Your task to perform on an android device: Open Google Maps and go to "Timeline" Image 0: 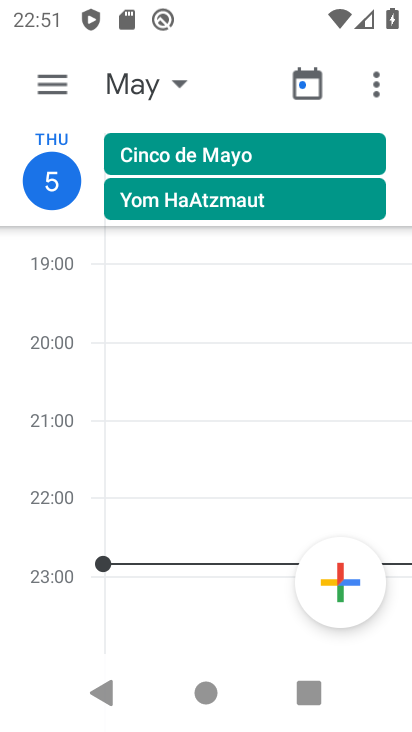
Step 0: press home button
Your task to perform on an android device: Open Google Maps and go to "Timeline" Image 1: 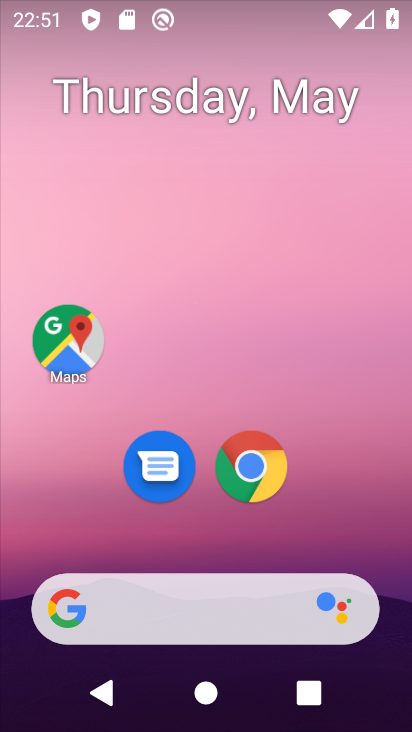
Step 1: drag from (321, 476) to (310, 44)
Your task to perform on an android device: Open Google Maps and go to "Timeline" Image 2: 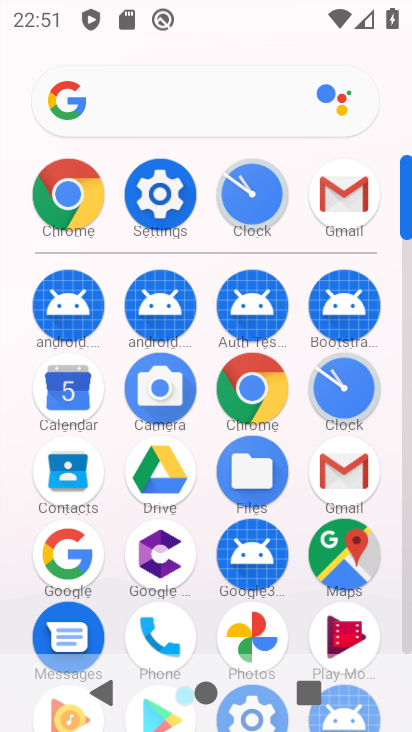
Step 2: click (345, 548)
Your task to perform on an android device: Open Google Maps and go to "Timeline" Image 3: 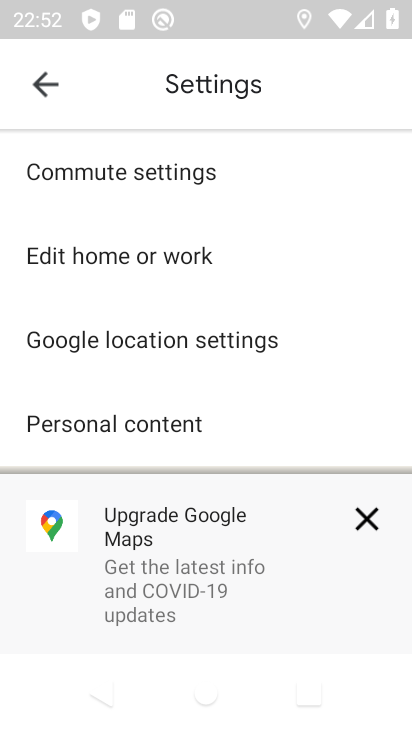
Step 3: click (38, 72)
Your task to perform on an android device: Open Google Maps and go to "Timeline" Image 4: 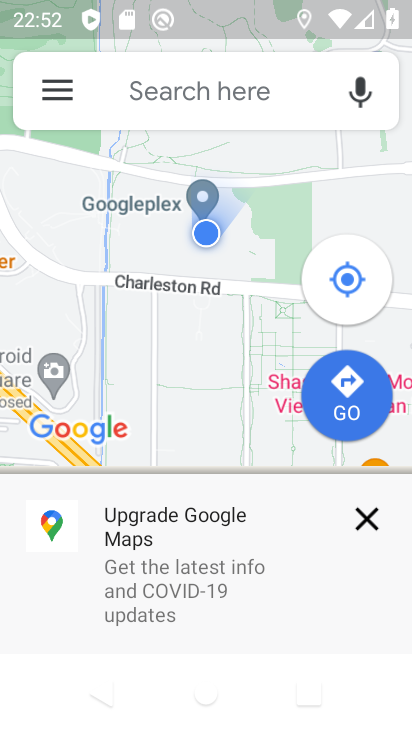
Step 4: click (39, 72)
Your task to perform on an android device: Open Google Maps and go to "Timeline" Image 5: 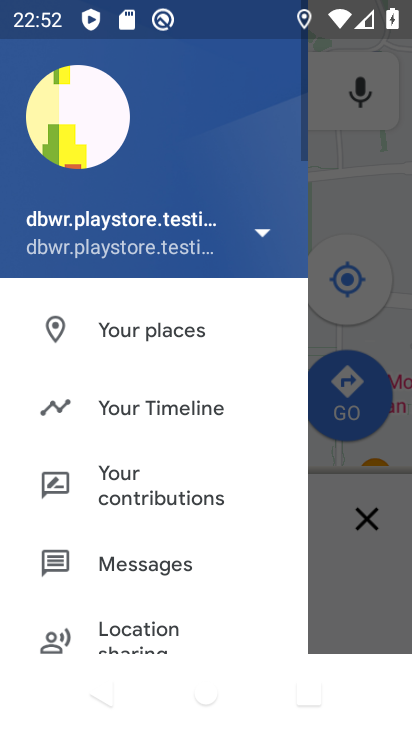
Step 5: click (158, 408)
Your task to perform on an android device: Open Google Maps and go to "Timeline" Image 6: 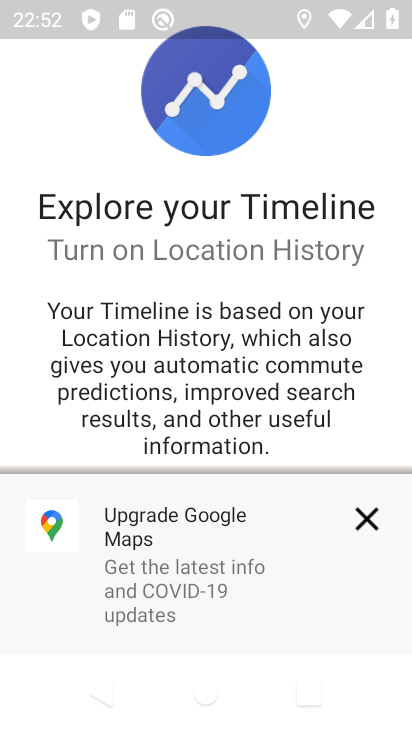
Step 6: click (361, 507)
Your task to perform on an android device: Open Google Maps and go to "Timeline" Image 7: 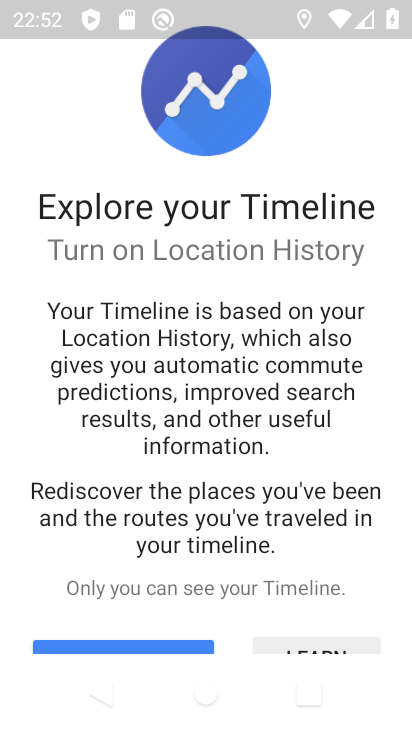
Step 7: click (330, 647)
Your task to perform on an android device: Open Google Maps and go to "Timeline" Image 8: 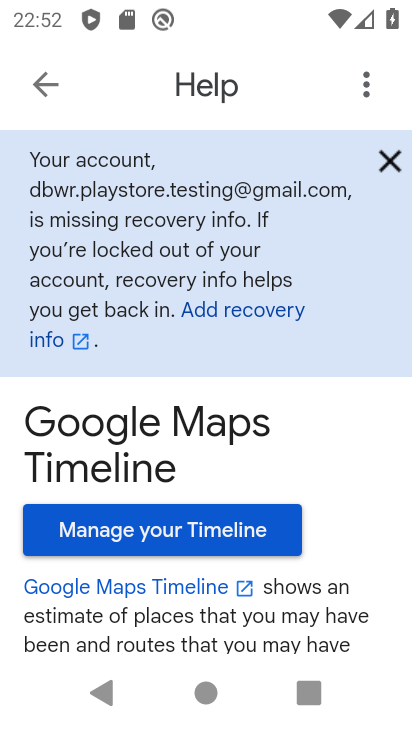
Step 8: click (48, 90)
Your task to perform on an android device: Open Google Maps and go to "Timeline" Image 9: 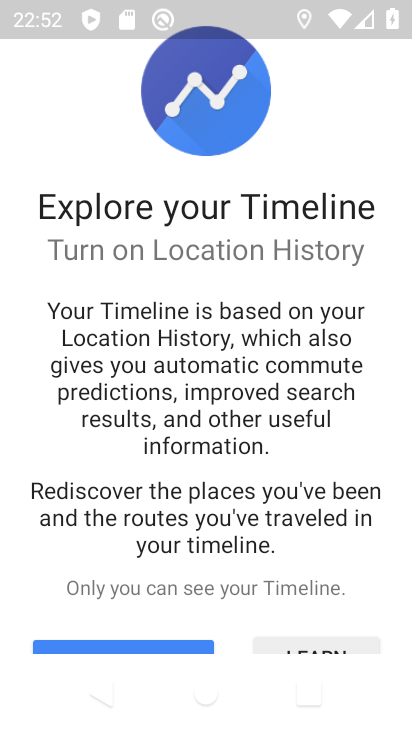
Step 9: click (149, 642)
Your task to perform on an android device: Open Google Maps and go to "Timeline" Image 10: 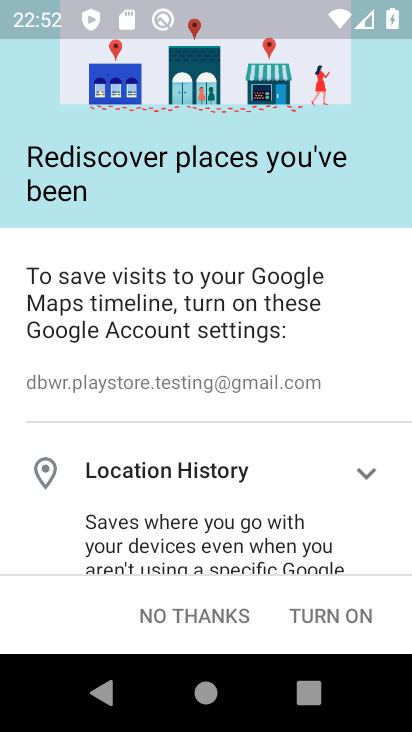
Step 10: click (199, 623)
Your task to perform on an android device: Open Google Maps and go to "Timeline" Image 11: 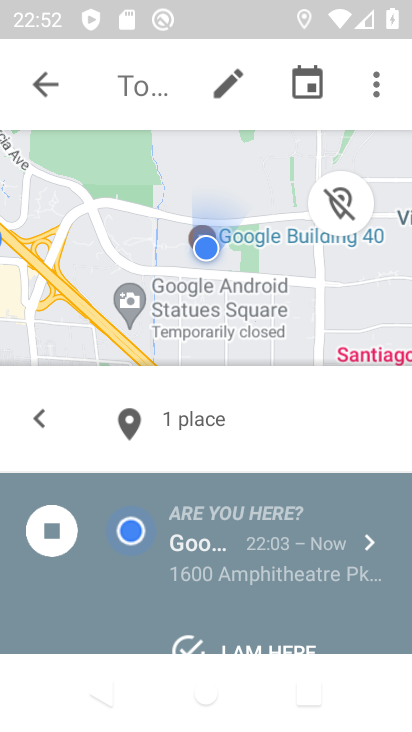
Step 11: task complete